Your task to perform on an android device: What's the weather today? Image 0: 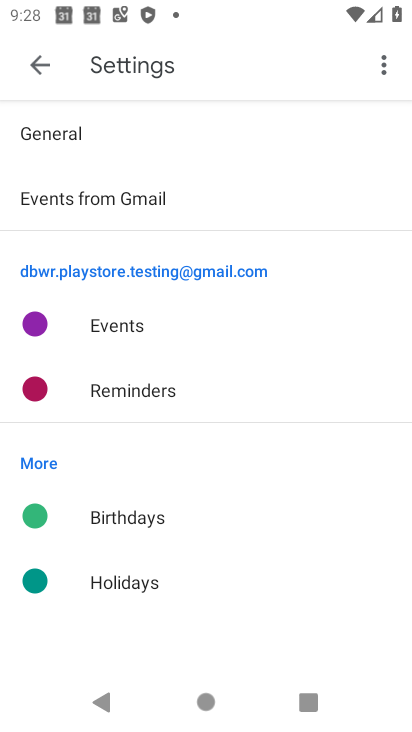
Step 0: press home button
Your task to perform on an android device: What's the weather today? Image 1: 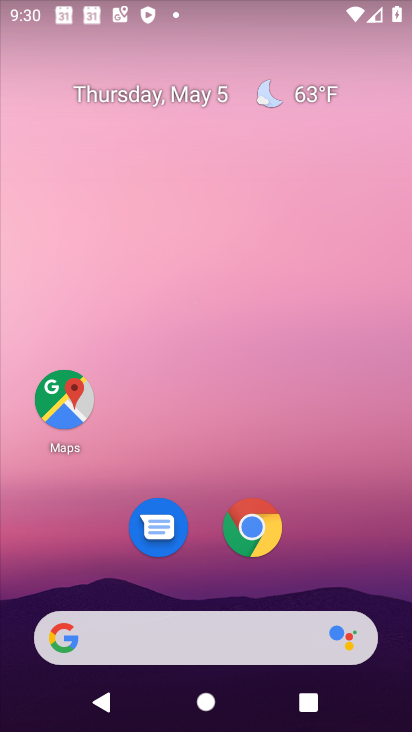
Step 1: click (187, 644)
Your task to perform on an android device: What's the weather today? Image 2: 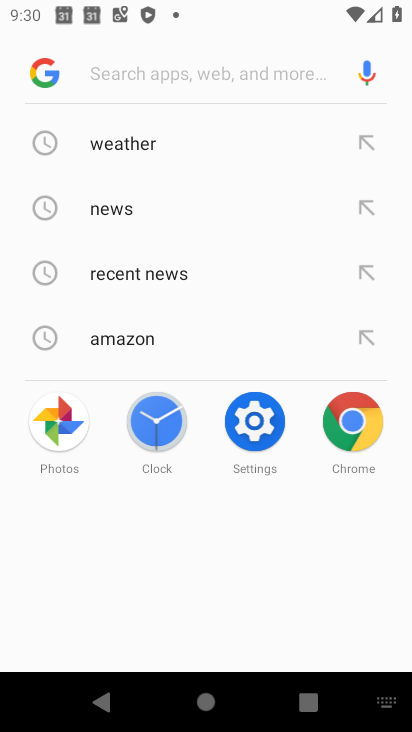
Step 2: type "What's the weather today?"
Your task to perform on an android device: What's the weather today? Image 3: 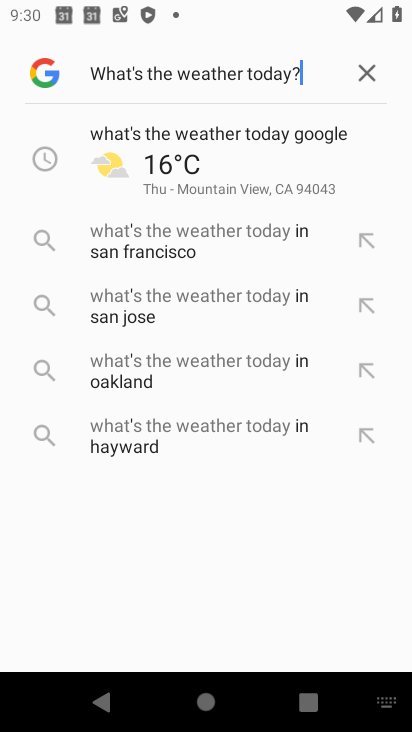
Step 3: click (268, 128)
Your task to perform on an android device: What's the weather today? Image 4: 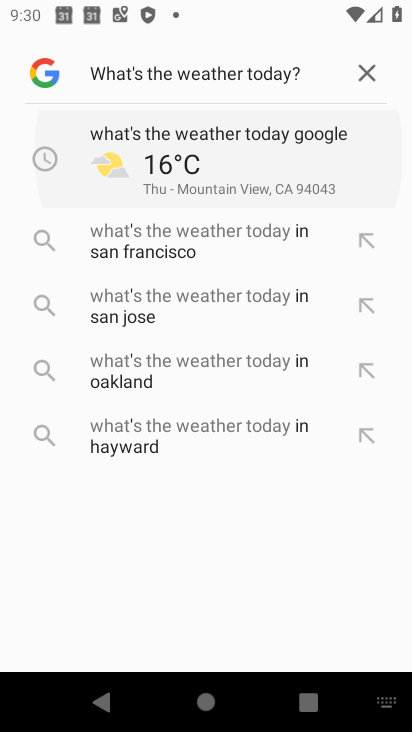
Step 4: click (272, 161)
Your task to perform on an android device: What's the weather today? Image 5: 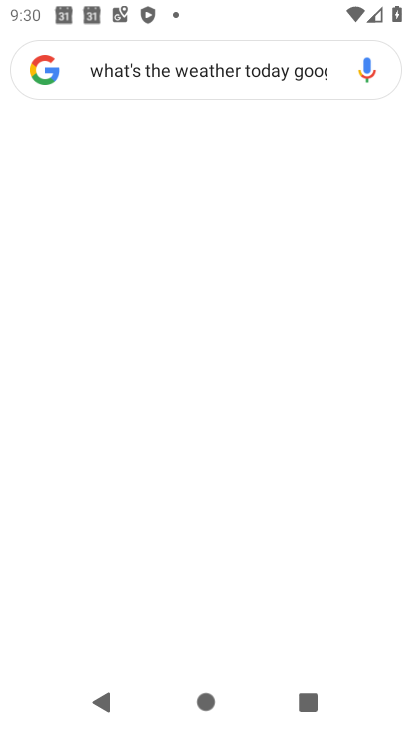
Step 5: click (261, 145)
Your task to perform on an android device: What's the weather today? Image 6: 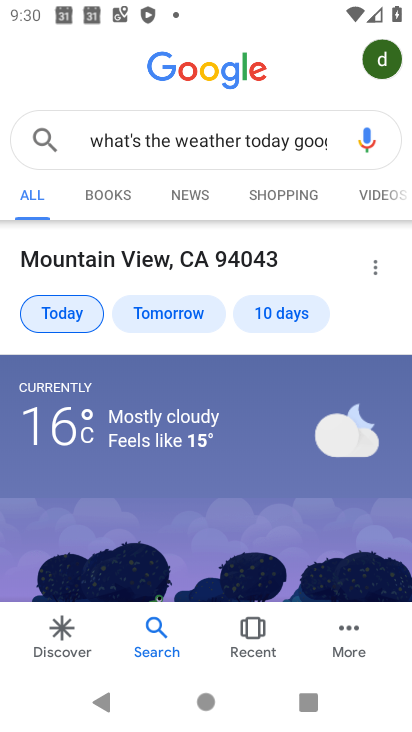
Step 6: task complete